Your task to perform on an android device: change text size in settings app Image 0: 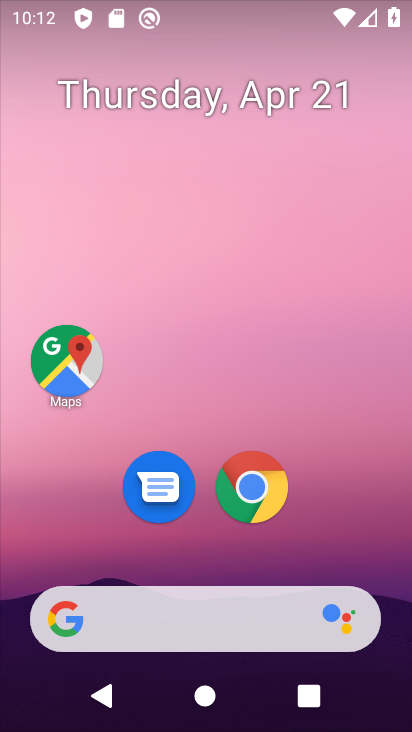
Step 0: drag from (367, 370) to (364, 127)
Your task to perform on an android device: change text size in settings app Image 1: 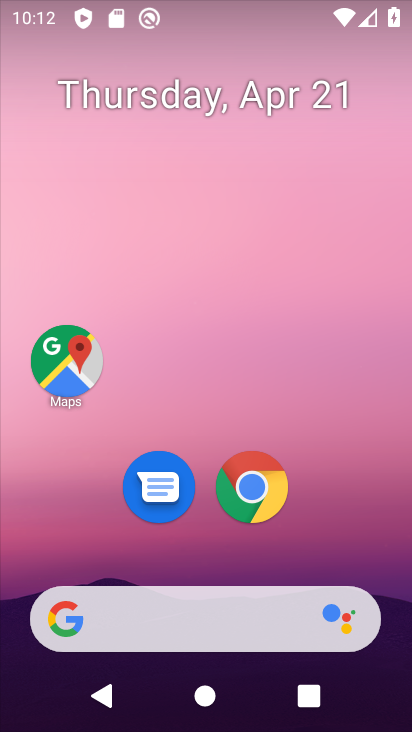
Step 1: drag from (346, 447) to (358, 191)
Your task to perform on an android device: change text size in settings app Image 2: 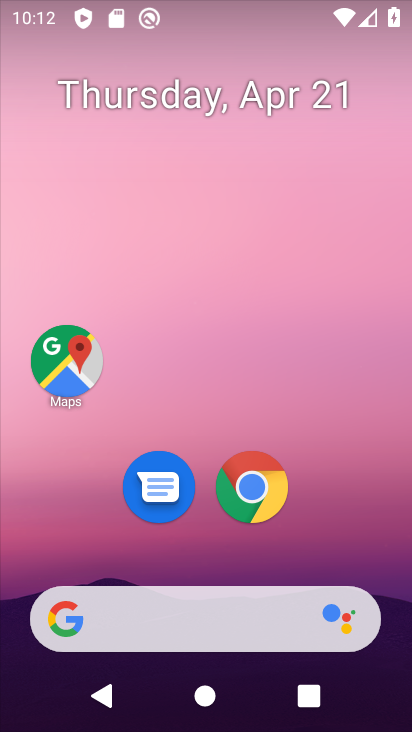
Step 2: drag from (361, 559) to (377, 196)
Your task to perform on an android device: change text size in settings app Image 3: 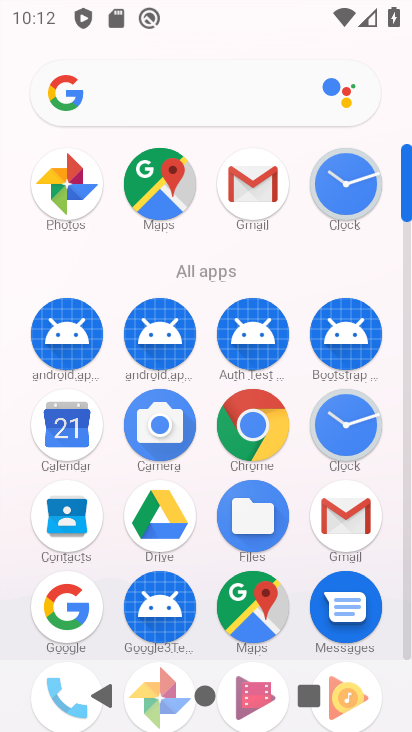
Step 3: drag from (301, 572) to (305, 309)
Your task to perform on an android device: change text size in settings app Image 4: 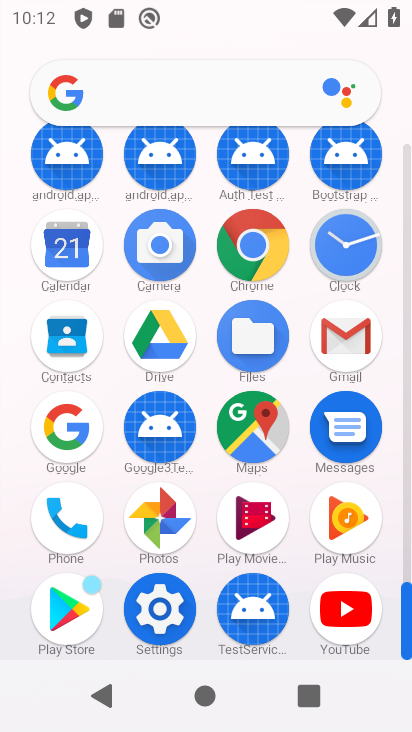
Step 4: click (140, 593)
Your task to perform on an android device: change text size in settings app Image 5: 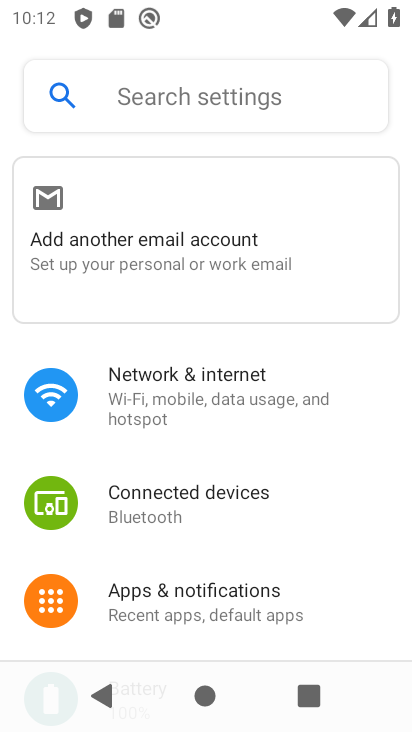
Step 5: drag from (300, 579) to (329, 252)
Your task to perform on an android device: change text size in settings app Image 6: 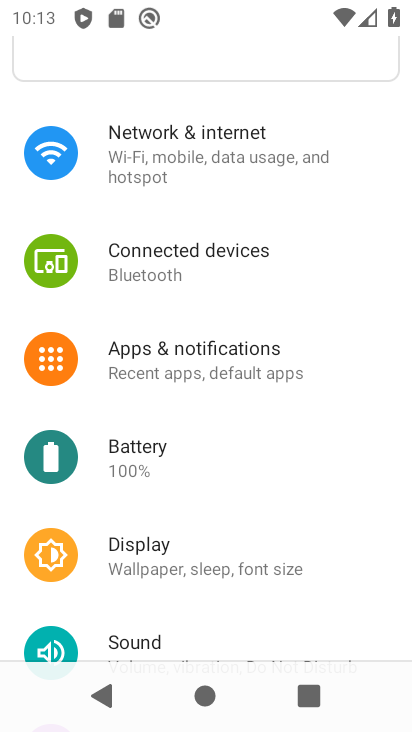
Step 6: drag from (230, 582) to (255, 457)
Your task to perform on an android device: change text size in settings app Image 7: 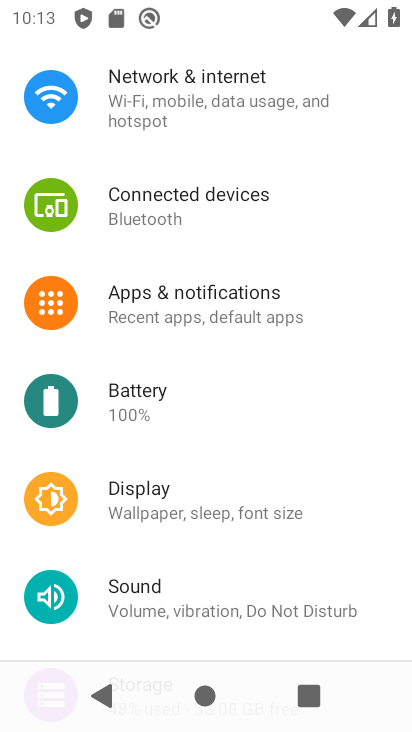
Step 7: click (152, 496)
Your task to perform on an android device: change text size in settings app Image 8: 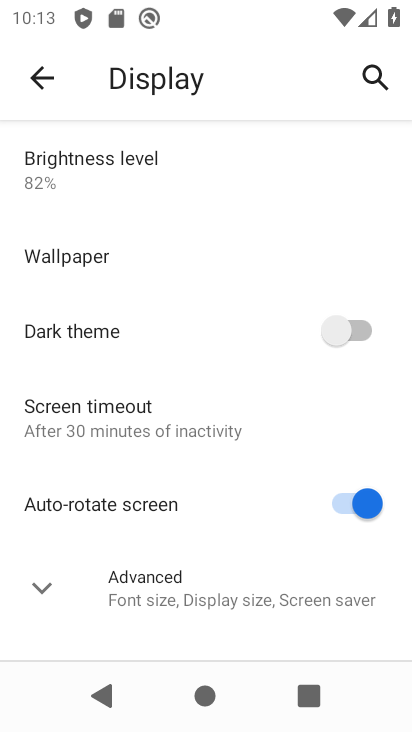
Step 8: click (164, 603)
Your task to perform on an android device: change text size in settings app Image 9: 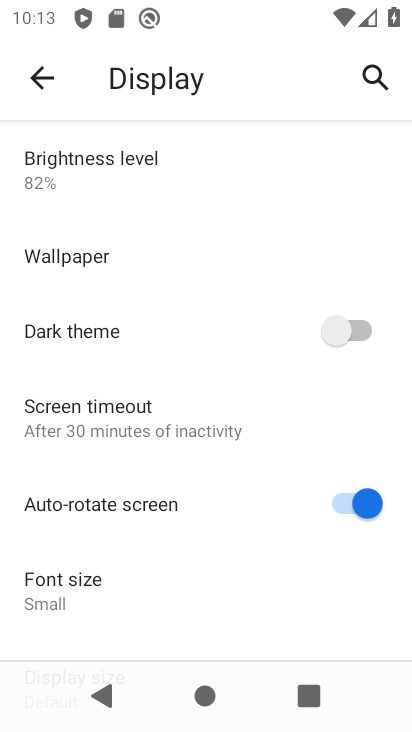
Step 9: click (44, 602)
Your task to perform on an android device: change text size in settings app Image 10: 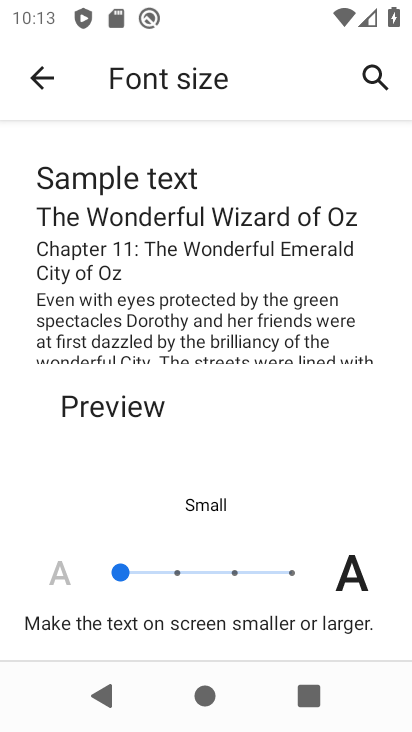
Step 10: task complete